Your task to perform on an android device: stop showing notifications on the lock screen Image 0: 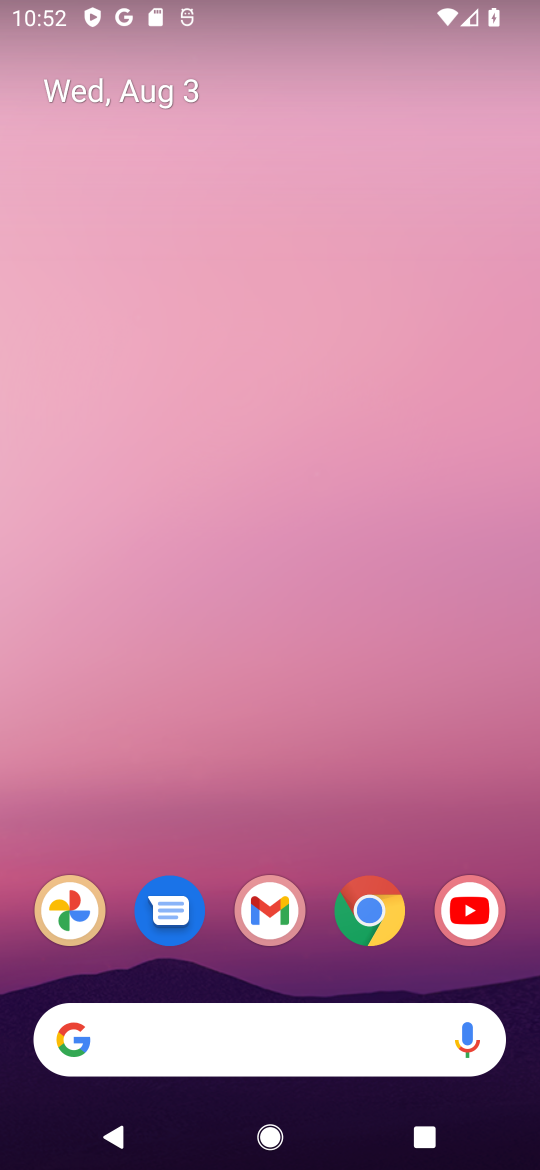
Step 0: drag from (352, 550) to (386, 225)
Your task to perform on an android device: stop showing notifications on the lock screen Image 1: 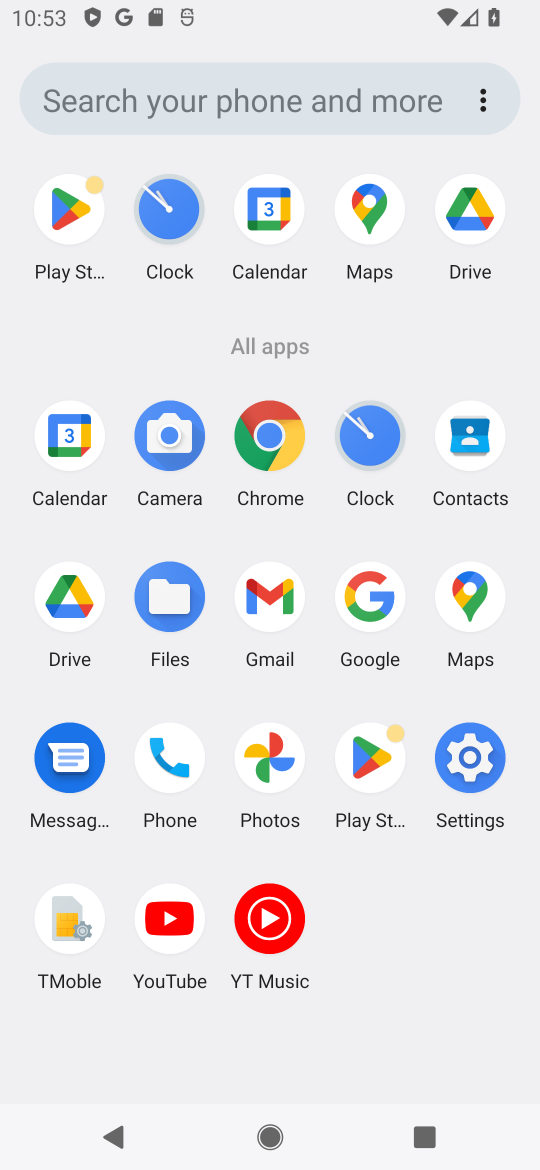
Step 1: click (469, 760)
Your task to perform on an android device: stop showing notifications on the lock screen Image 2: 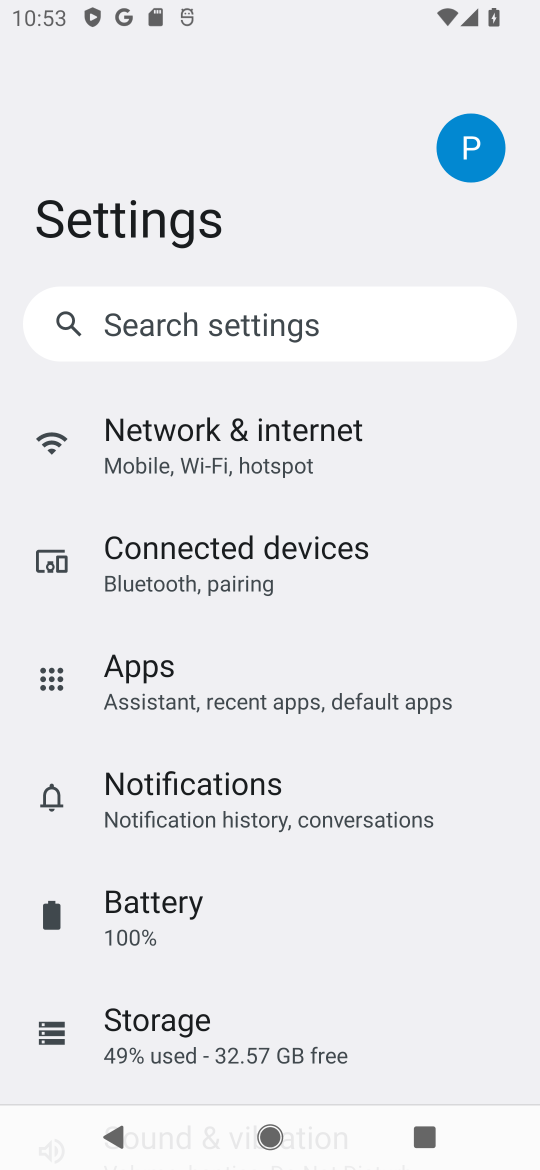
Step 2: click (217, 795)
Your task to perform on an android device: stop showing notifications on the lock screen Image 3: 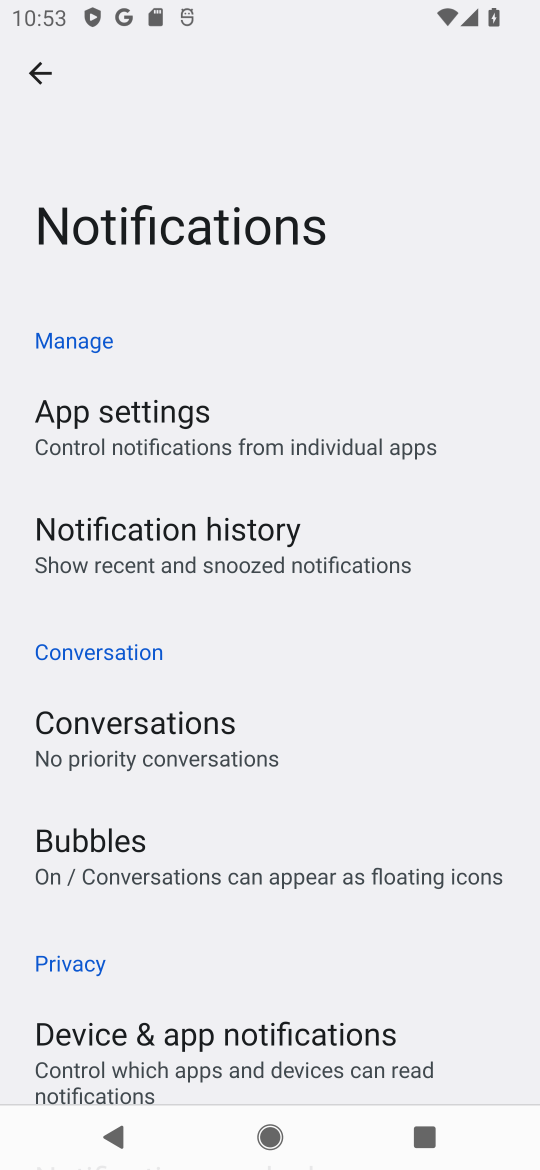
Step 3: drag from (428, 779) to (433, 142)
Your task to perform on an android device: stop showing notifications on the lock screen Image 4: 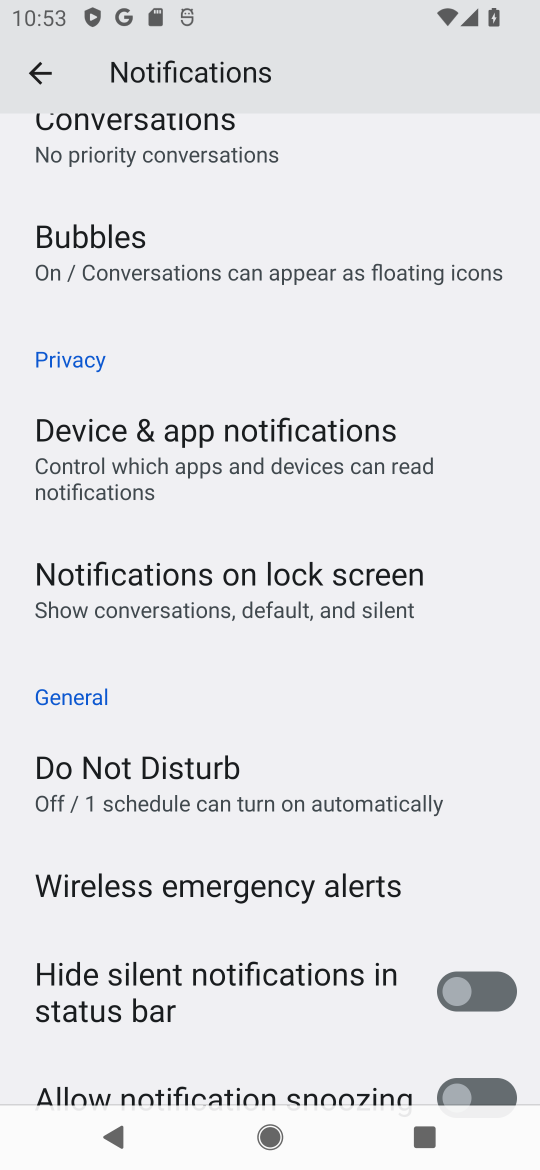
Step 4: click (212, 588)
Your task to perform on an android device: stop showing notifications on the lock screen Image 5: 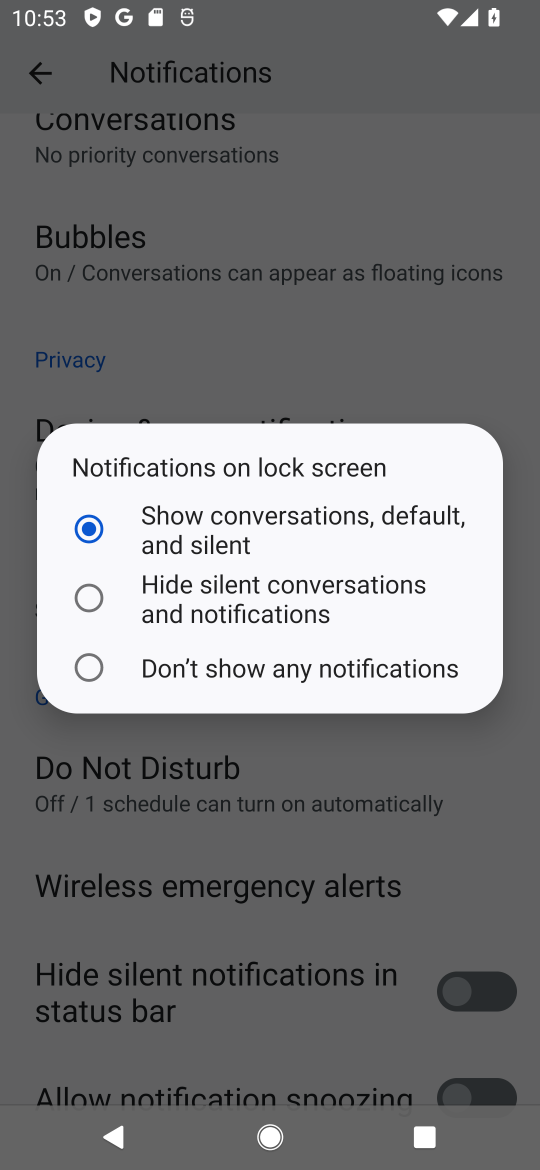
Step 5: click (88, 671)
Your task to perform on an android device: stop showing notifications on the lock screen Image 6: 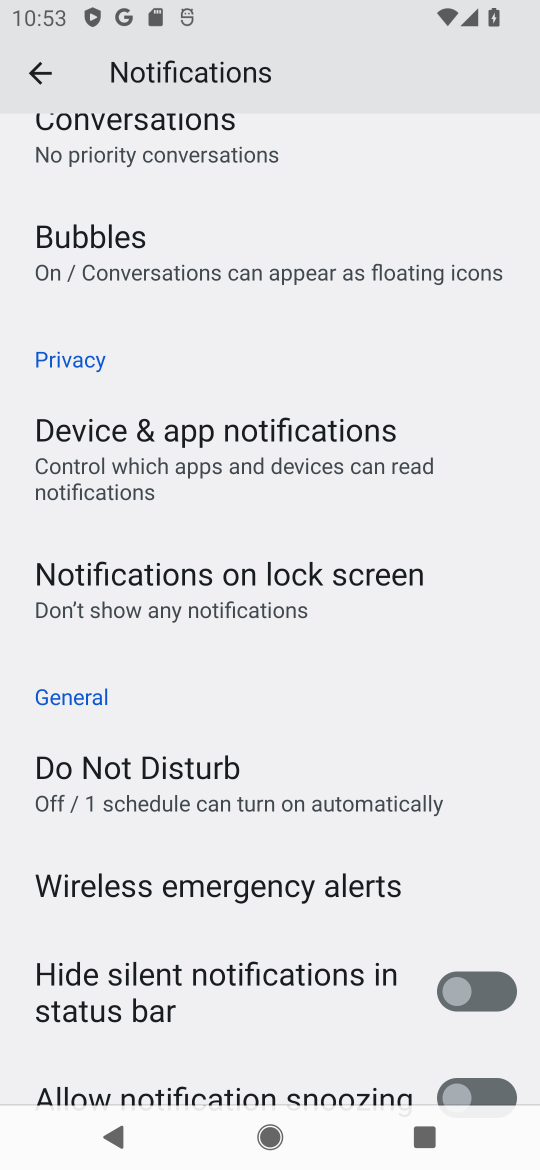
Step 6: task complete